Your task to perform on an android device: stop showing notifications on the lock screen Image 0: 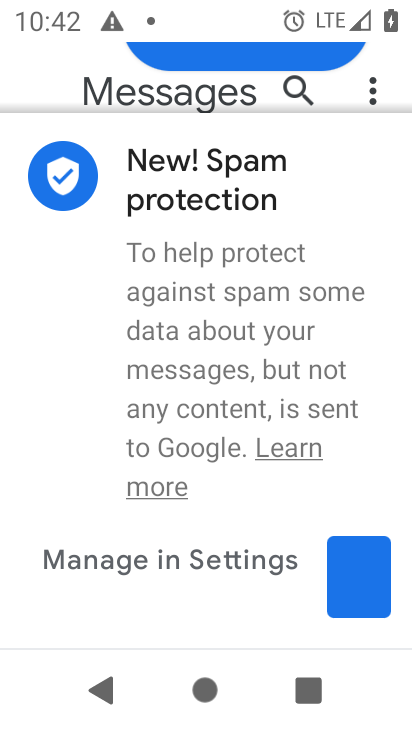
Step 0: press home button
Your task to perform on an android device: stop showing notifications on the lock screen Image 1: 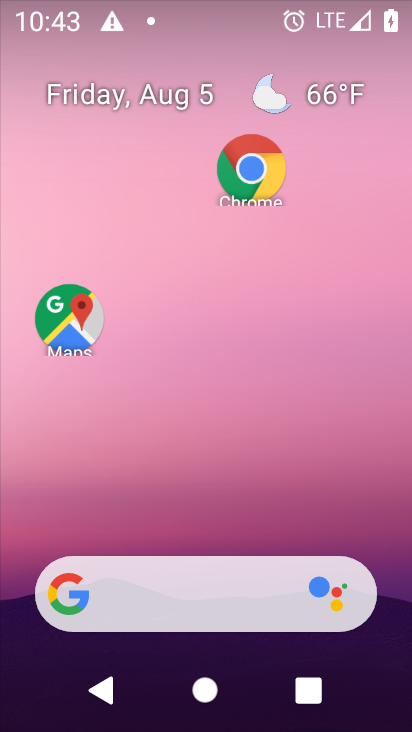
Step 1: drag from (184, 521) to (190, 106)
Your task to perform on an android device: stop showing notifications on the lock screen Image 2: 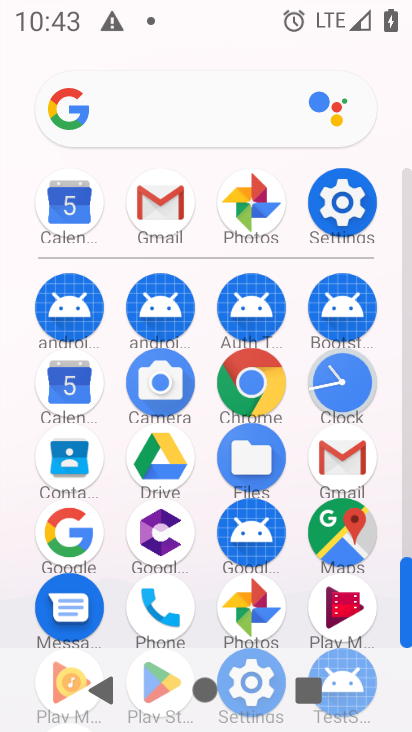
Step 2: click (334, 207)
Your task to perform on an android device: stop showing notifications on the lock screen Image 3: 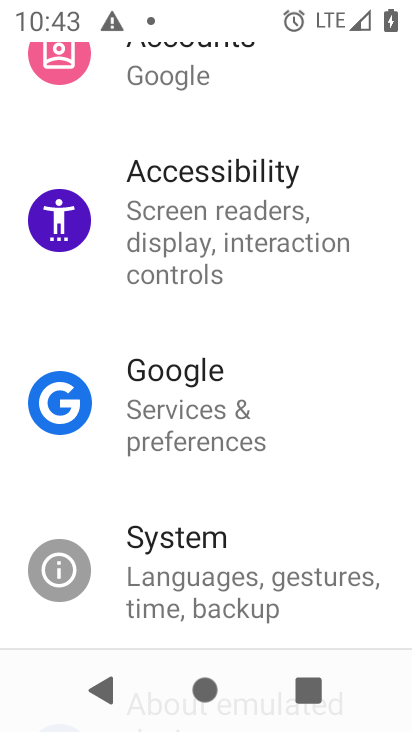
Step 3: drag from (190, 230) to (244, 544)
Your task to perform on an android device: stop showing notifications on the lock screen Image 4: 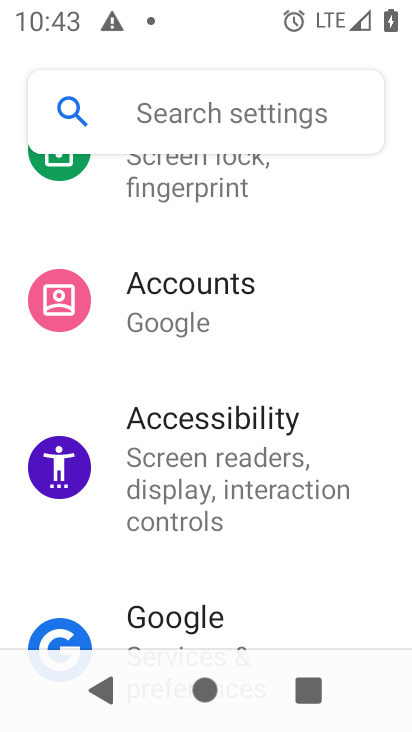
Step 4: drag from (227, 244) to (242, 592)
Your task to perform on an android device: stop showing notifications on the lock screen Image 5: 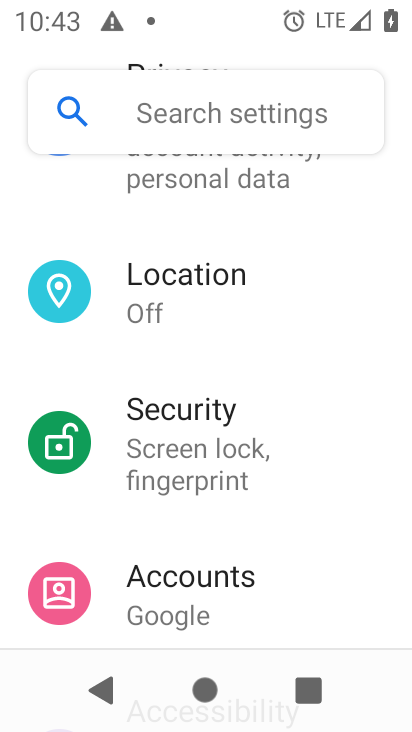
Step 5: drag from (208, 206) to (225, 567)
Your task to perform on an android device: stop showing notifications on the lock screen Image 6: 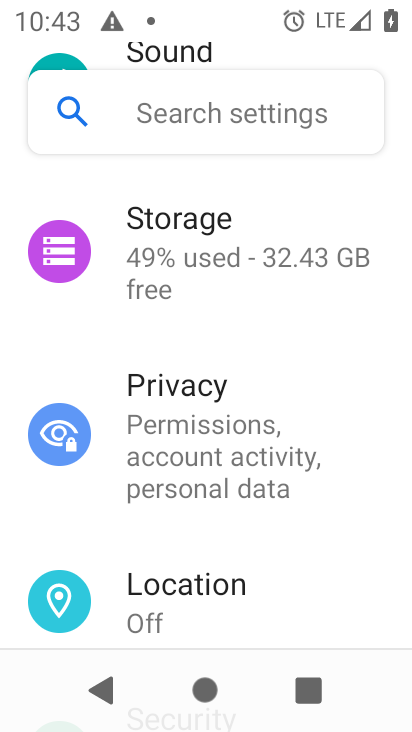
Step 6: drag from (207, 192) to (240, 572)
Your task to perform on an android device: stop showing notifications on the lock screen Image 7: 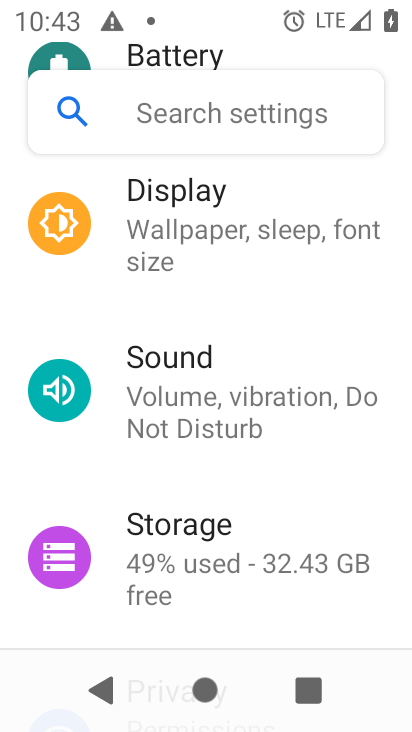
Step 7: drag from (171, 164) to (189, 578)
Your task to perform on an android device: stop showing notifications on the lock screen Image 8: 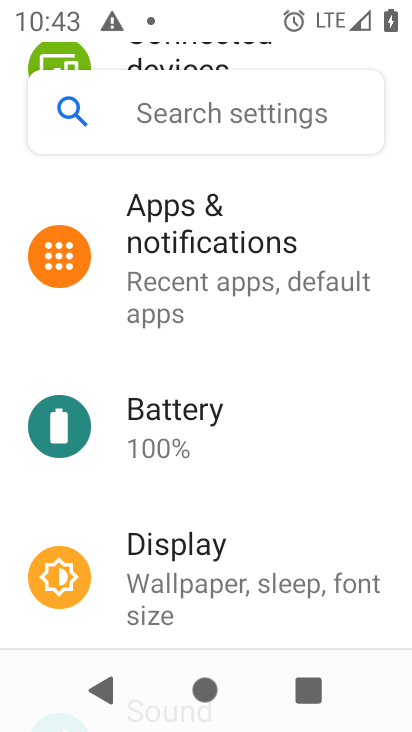
Step 8: click (216, 251)
Your task to perform on an android device: stop showing notifications on the lock screen Image 9: 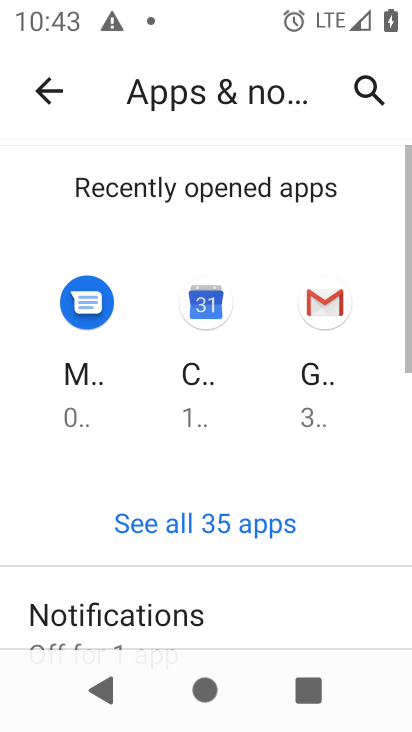
Step 9: click (170, 596)
Your task to perform on an android device: stop showing notifications on the lock screen Image 10: 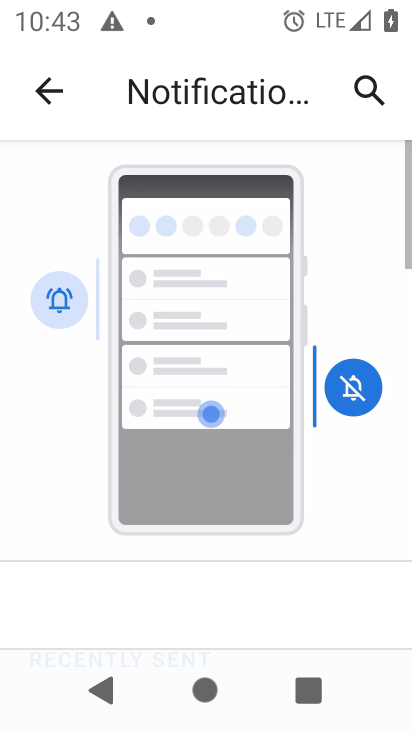
Step 10: drag from (217, 585) to (183, 144)
Your task to perform on an android device: stop showing notifications on the lock screen Image 11: 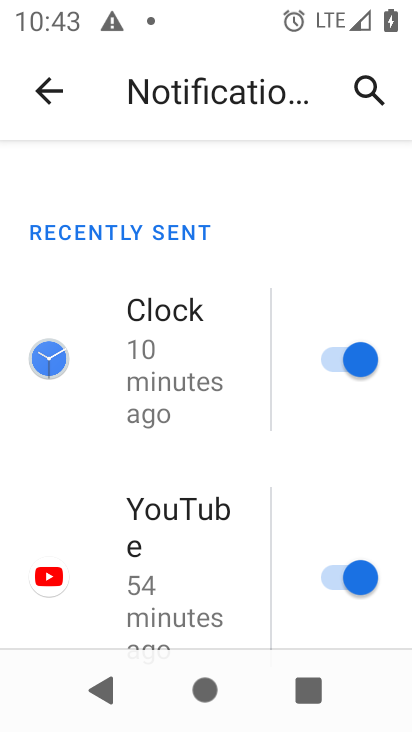
Step 11: drag from (225, 643) to (217, 151)
Your task to perform on an android device: stop showing notifications on the lock screen Image 12: 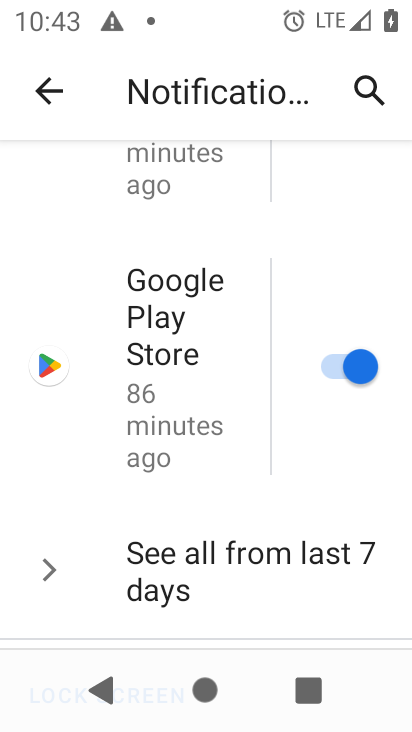
Step 12: drag from (214, 597) to (209, 143)
Your task to perform on an android device: stop showing notifications on the lock screen Image 13: 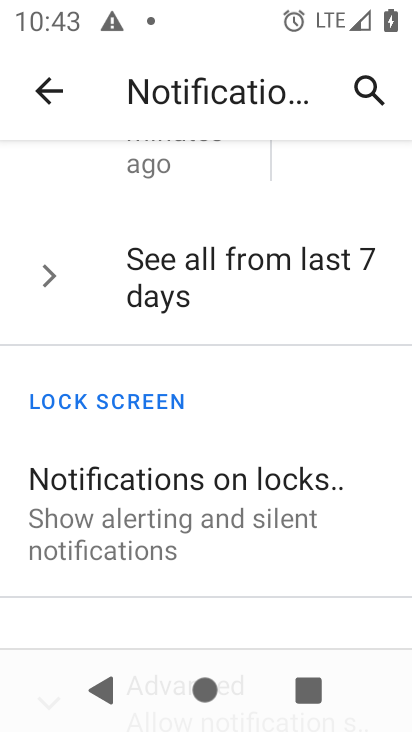
Step 13: click (222, 514)
Your task to perform on an android device: stop showing notifications on the lock screen Image 14: 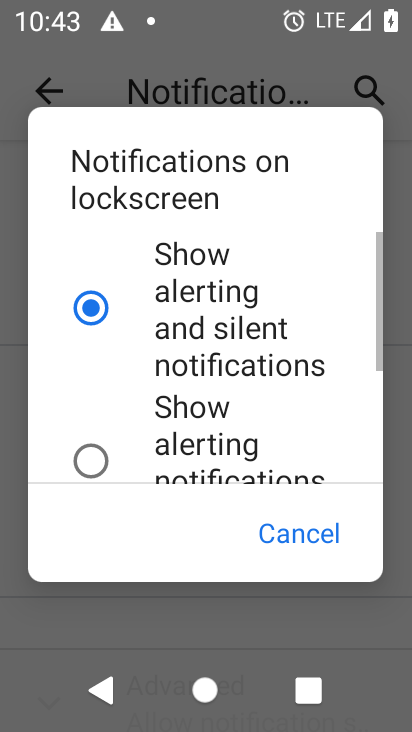
Step 14: drag from (185, 451) to (185, 138)
Your task to perform on an android device: stop showing notifications on the lock screen Image 15: 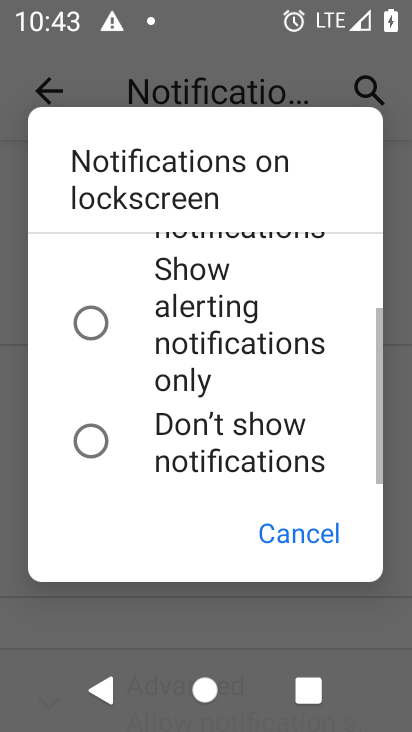
Step 15: click (202, 440)
Your task to perform on an android device: stop showing notifications on the lock screen Image 16: 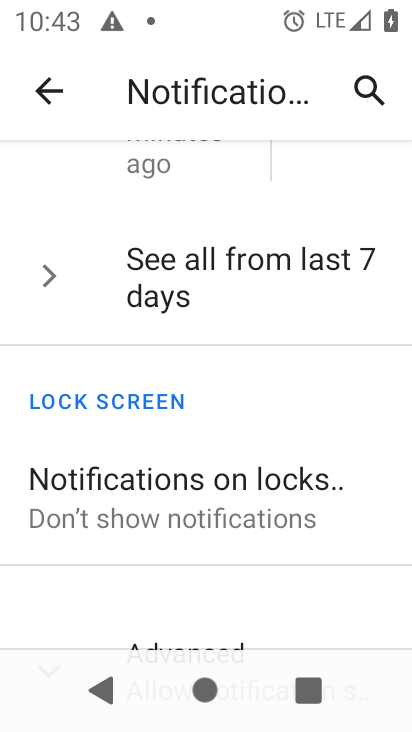
Step 16: task complete